Your task to perform on an android device: Set the phone to "Do not disturb". Image 0: 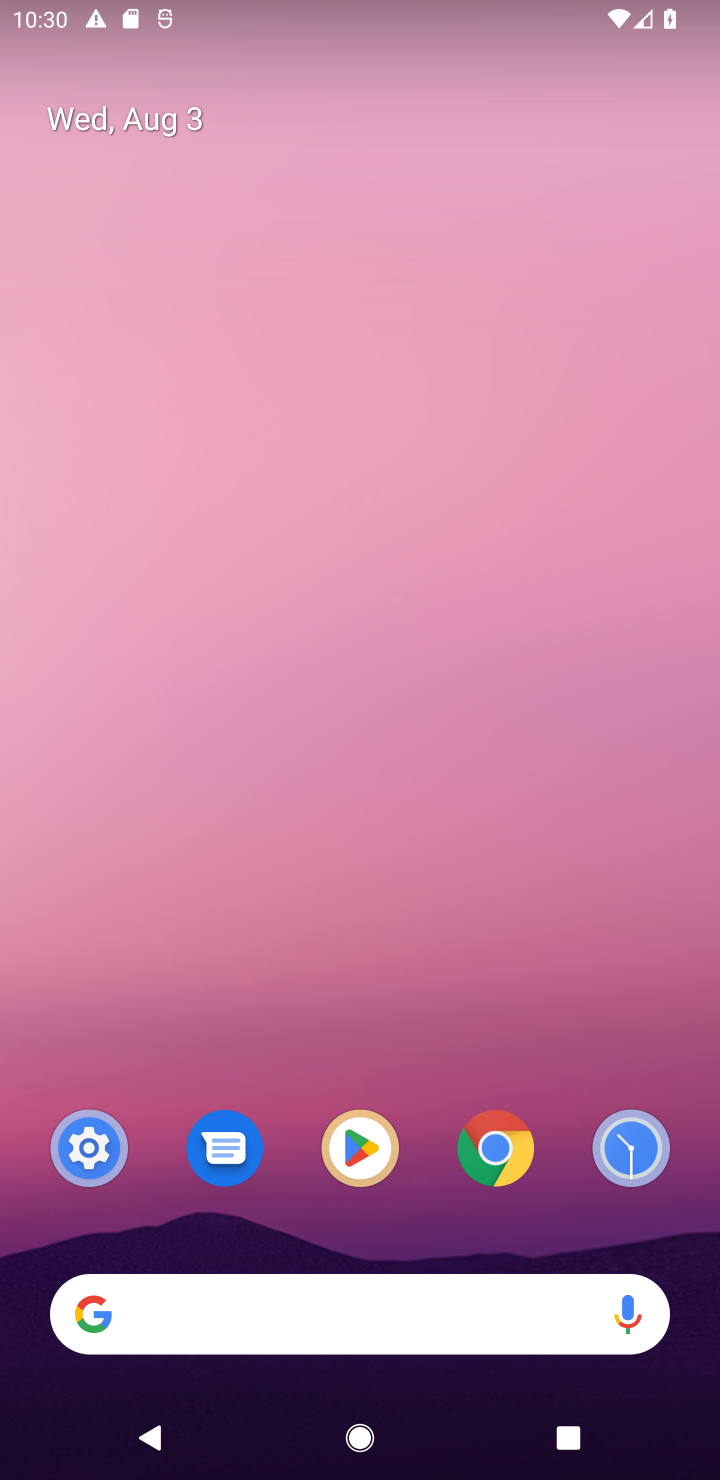
Step 0: drag from (466, 1091) to (530, 123)
Your task to perform on an android device: Set the phone to "Do not disturb". Image 1: 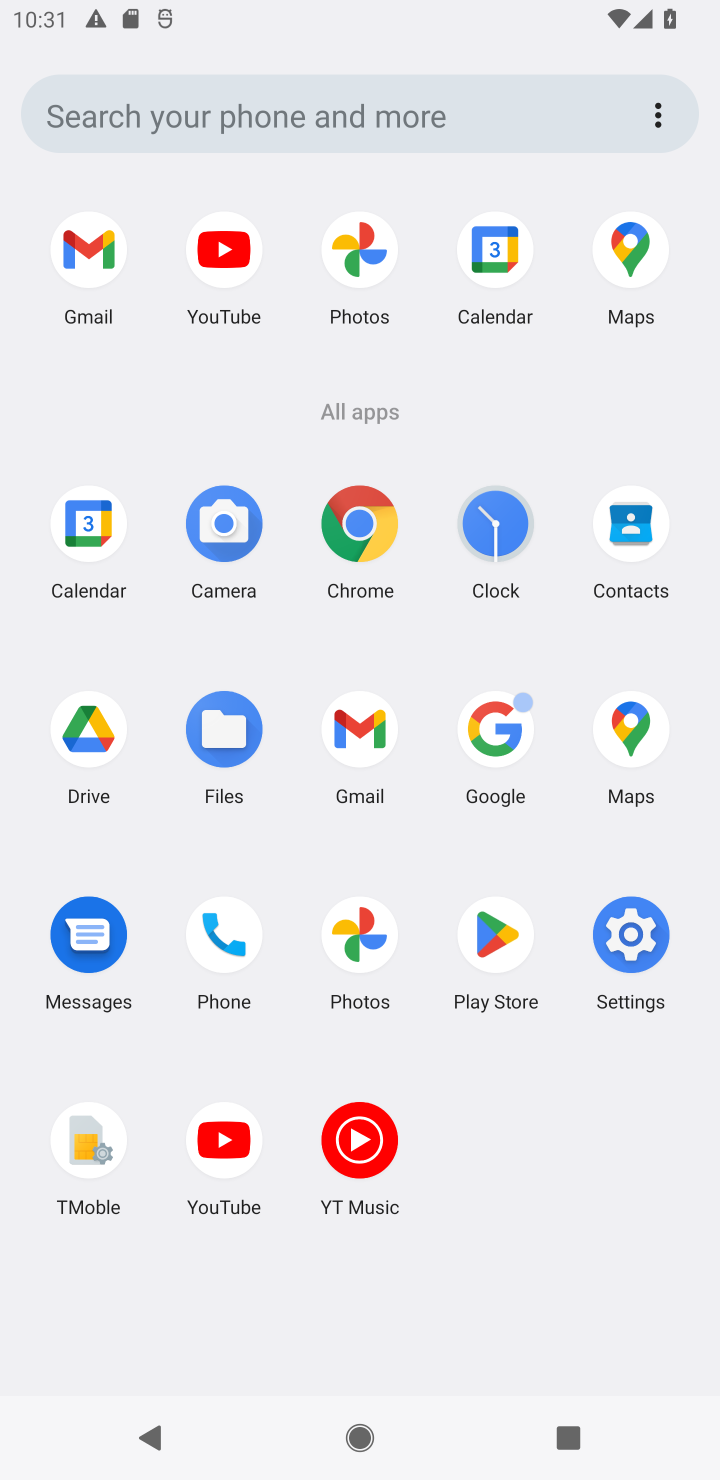
Step 1: click (653, 962)
Your task to perform on an android device: Set the phone to "Do not disturb". Image 2: 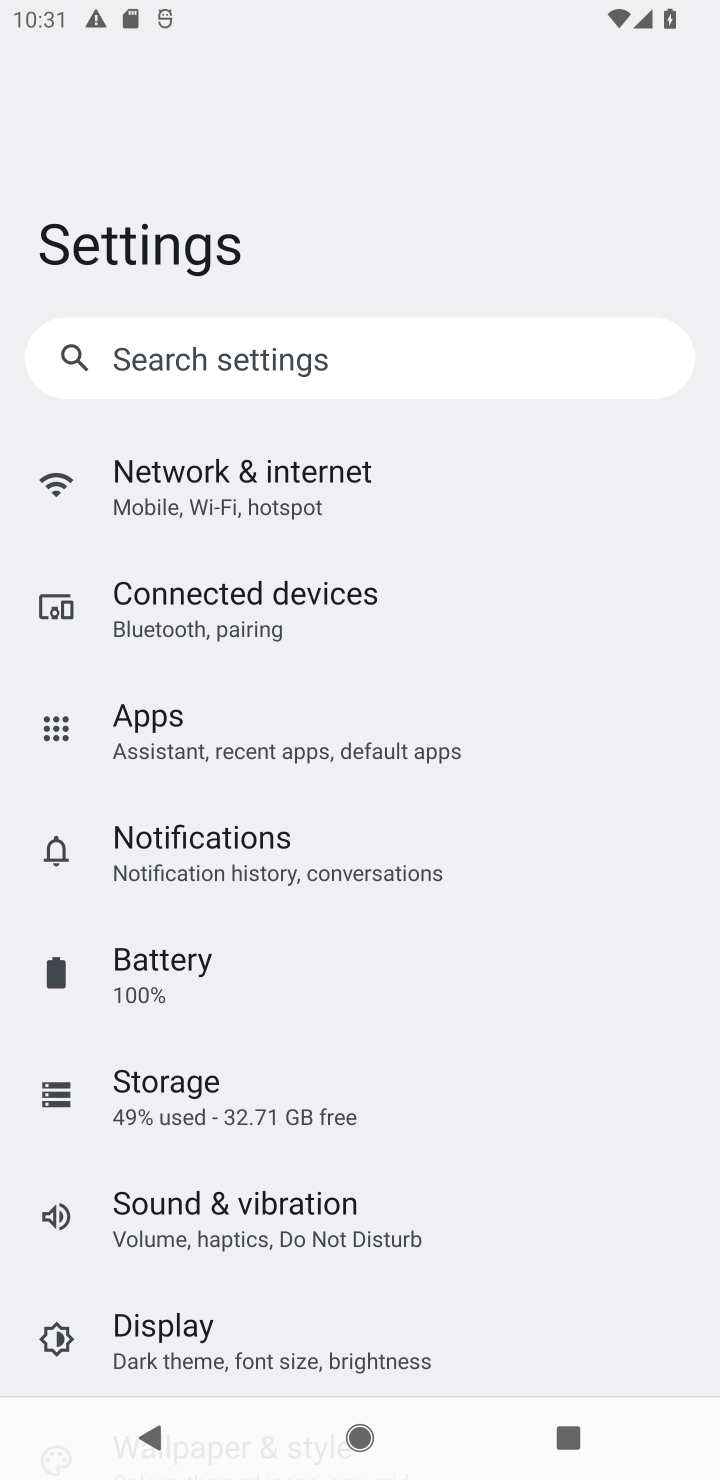
Step 2: drag from (329, 1228) to (400, 519)
Your task to perform on an android device: Set the phone to "Do not disturb". Image 3: 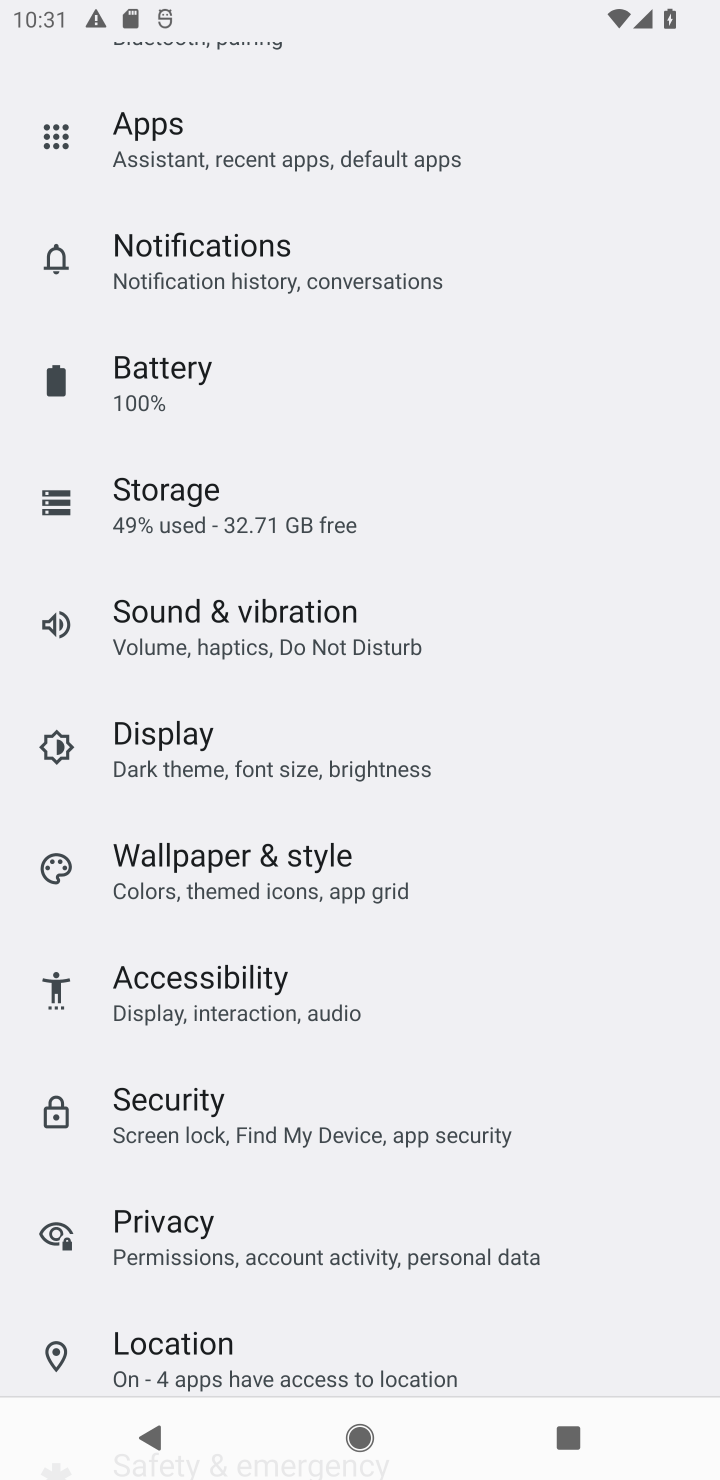
Step 3: drag from (312, 1258) to (388, 376)
Your task to perform on an android device: Set the phone to "Do not disturb". Image 4: 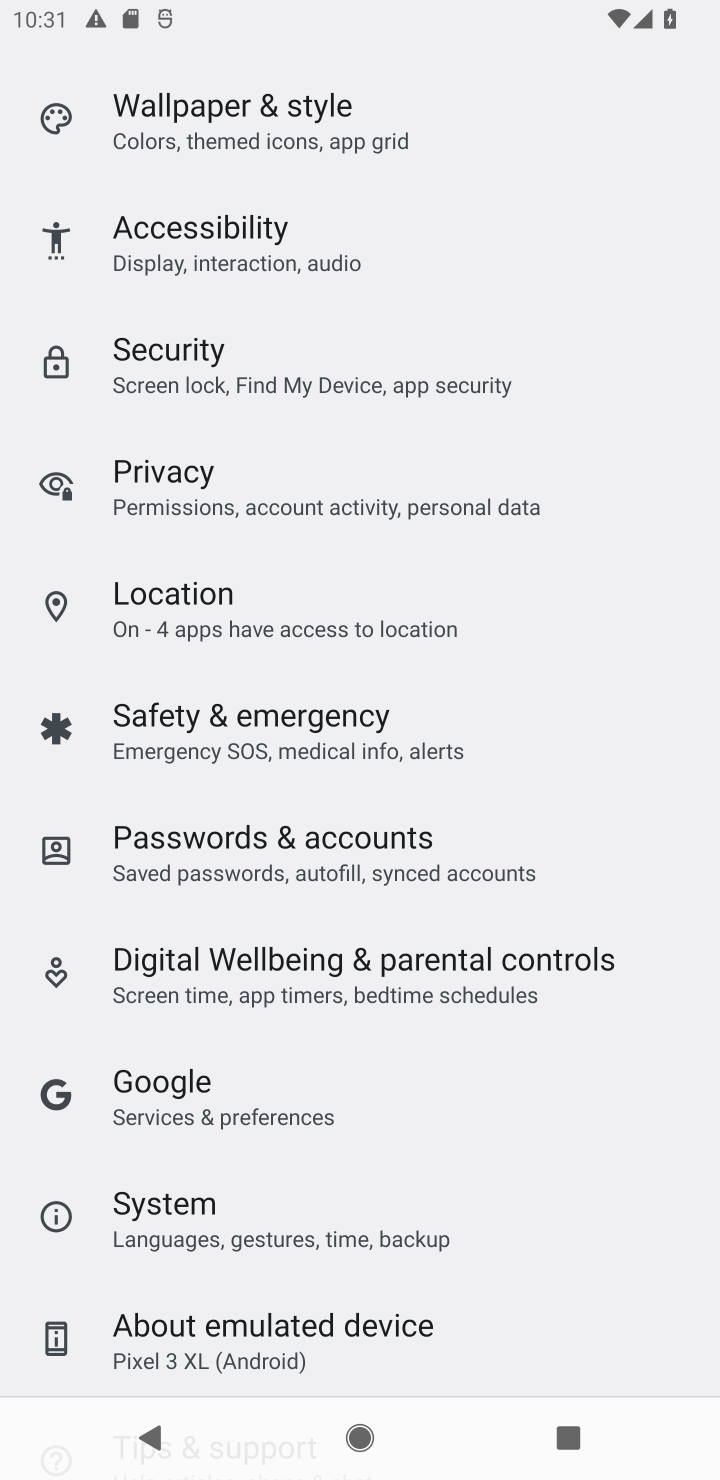
Step 4: drag from (356, 615) to (465, 1266)
Your task to perform on an android device: Set the phone to "Do not disturb". Image 5: 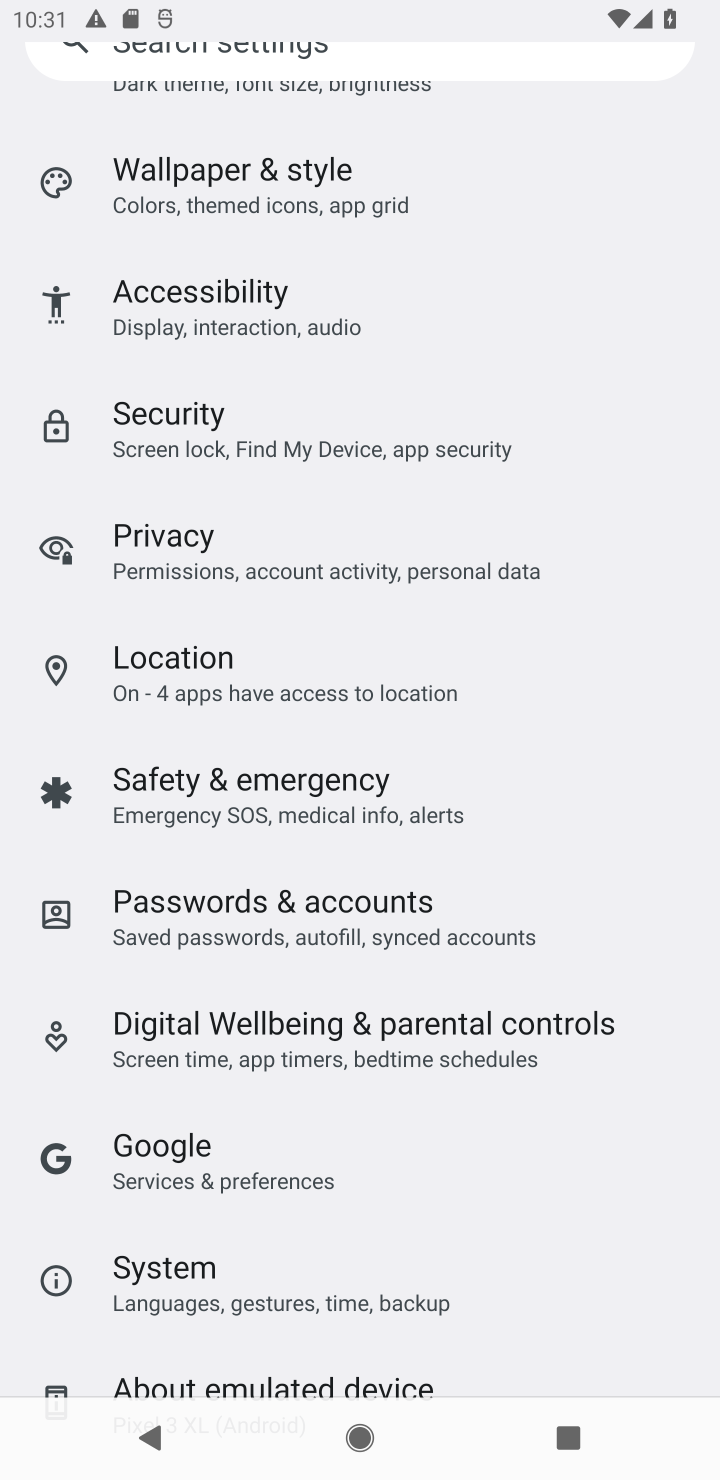
Step 5: drag from (332, 355) to (321, 1127)
Your task to perform on an android device: Set the phone to "Do not disturb". Image 6: 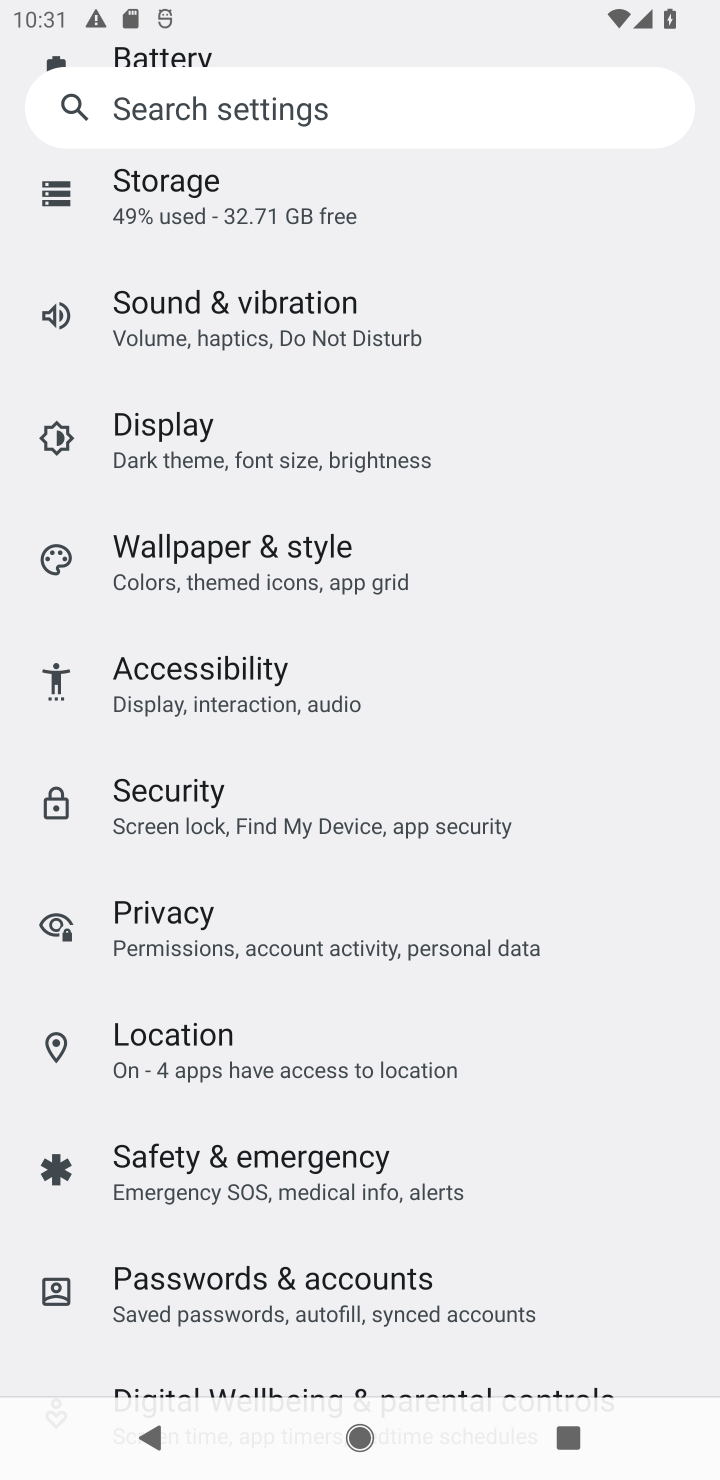
Step 6: click (262, 309)
Your task to perform on an android device: Set the phone to "Do not disturb". Image 7: 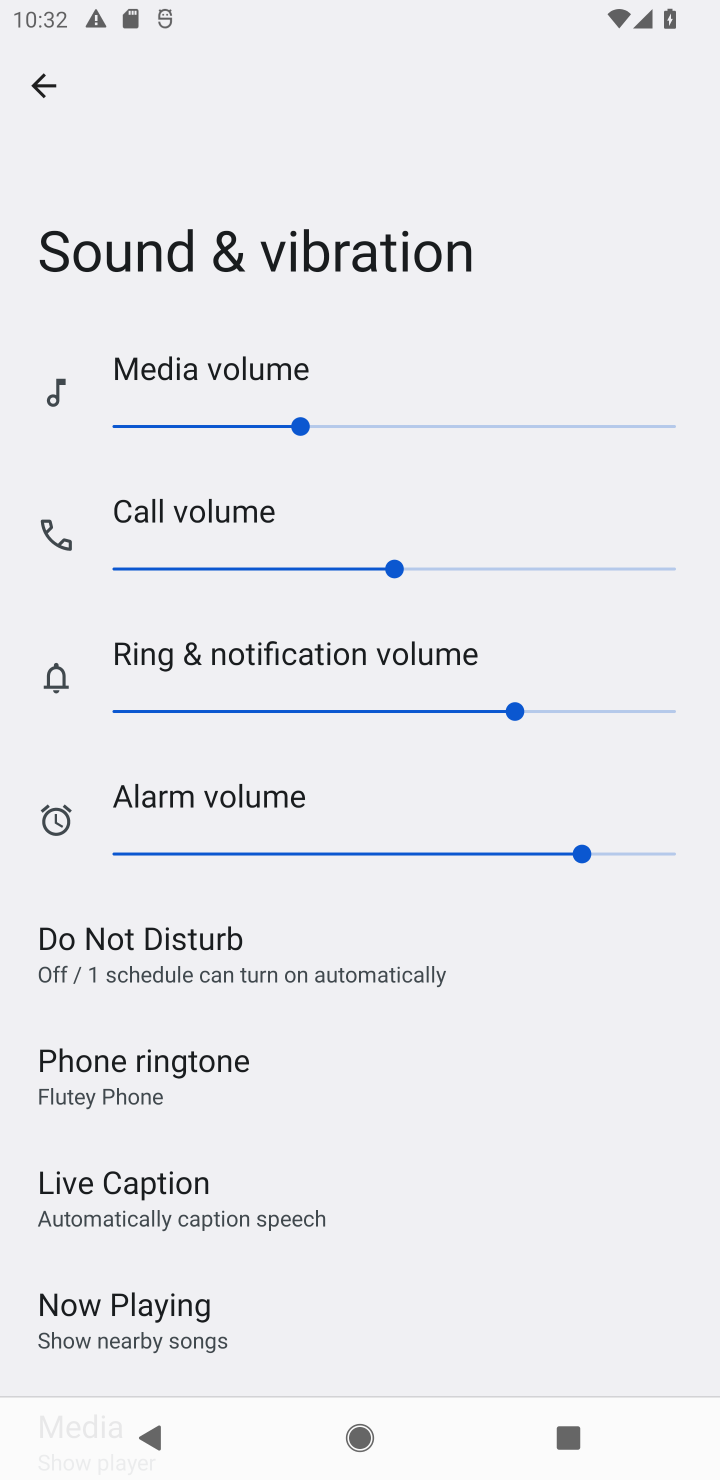
Step 7: click (212, 976)
Your task to perform on an android device: Set the phone to "Do not disturb". Image 8: 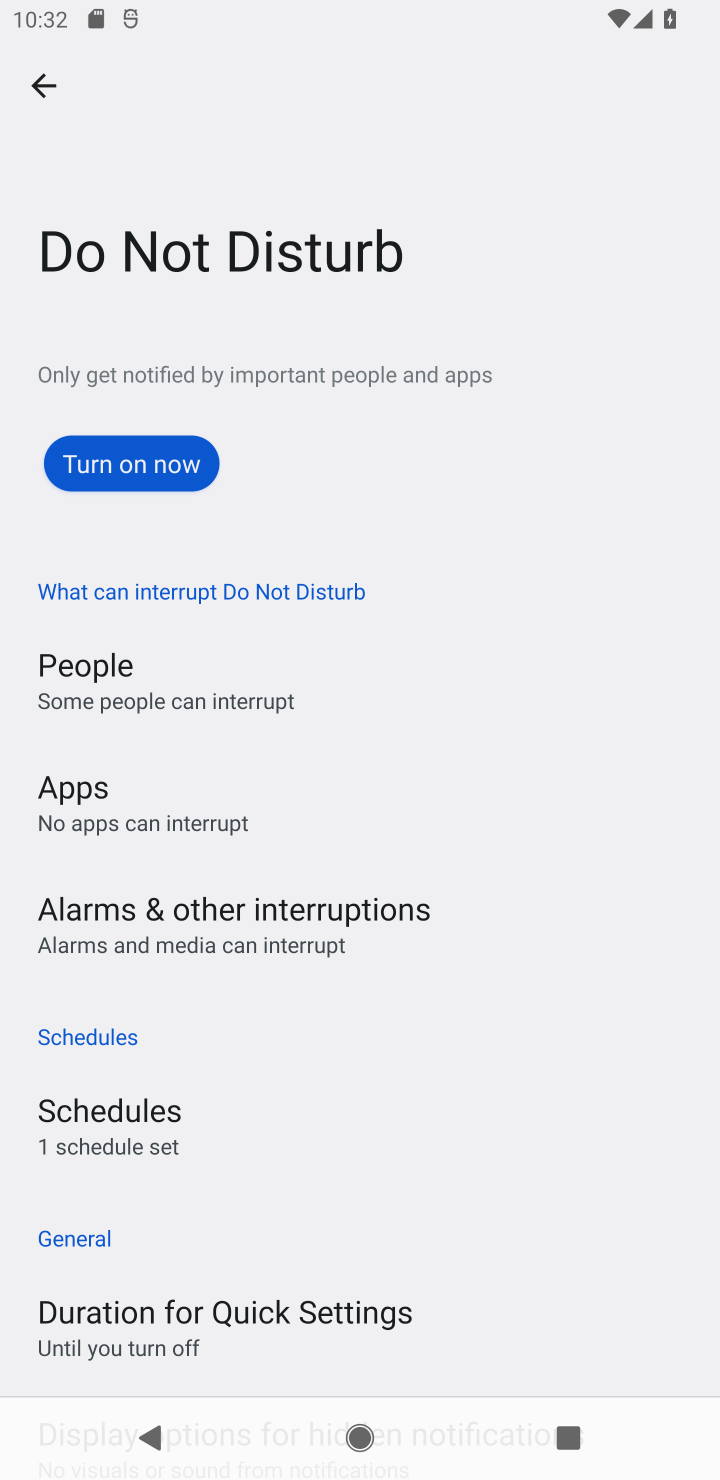
Step 8: click (146, 461)
Your task to perform on an android device: Set the phone to "Do not disturb". Image 9: 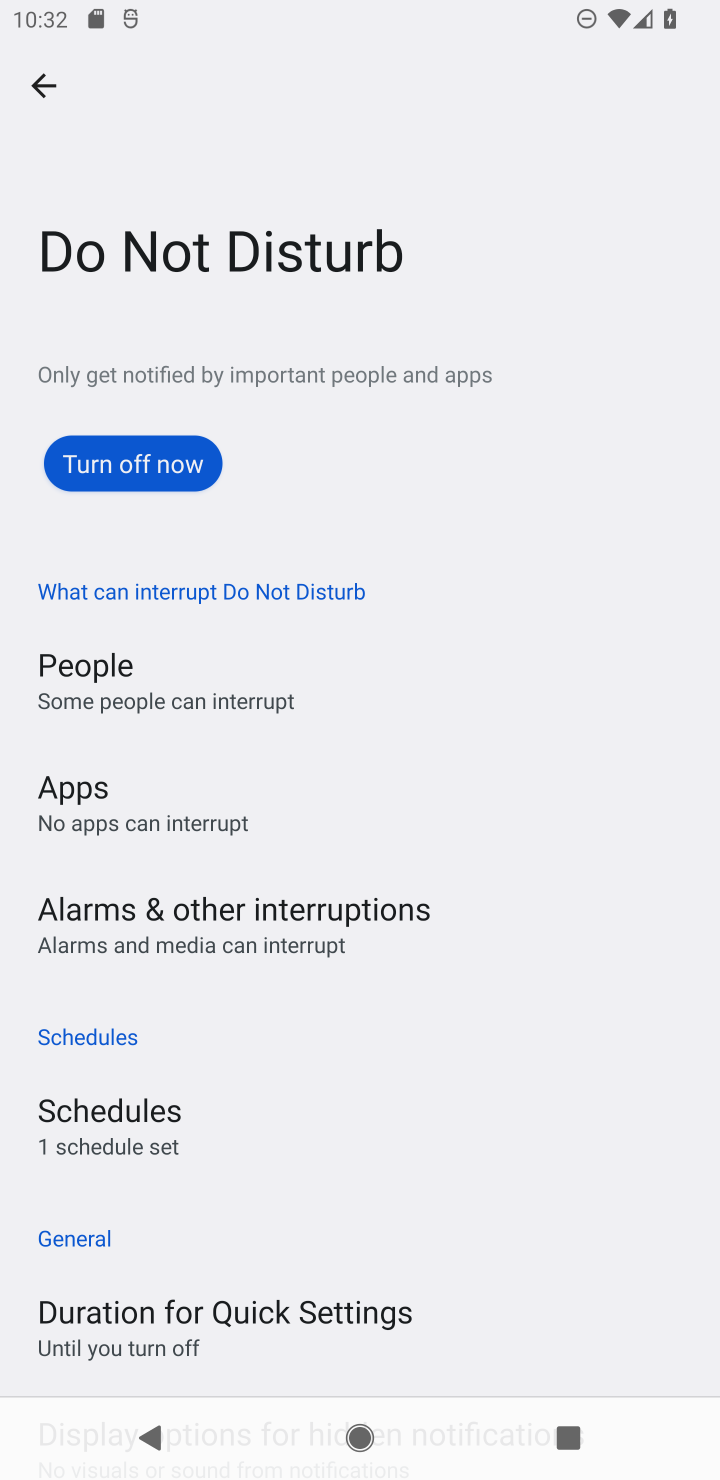
Step 9: click (108, 482)
Your task to perform on an android device: Set the phone to "Do not disturb". Image 10: 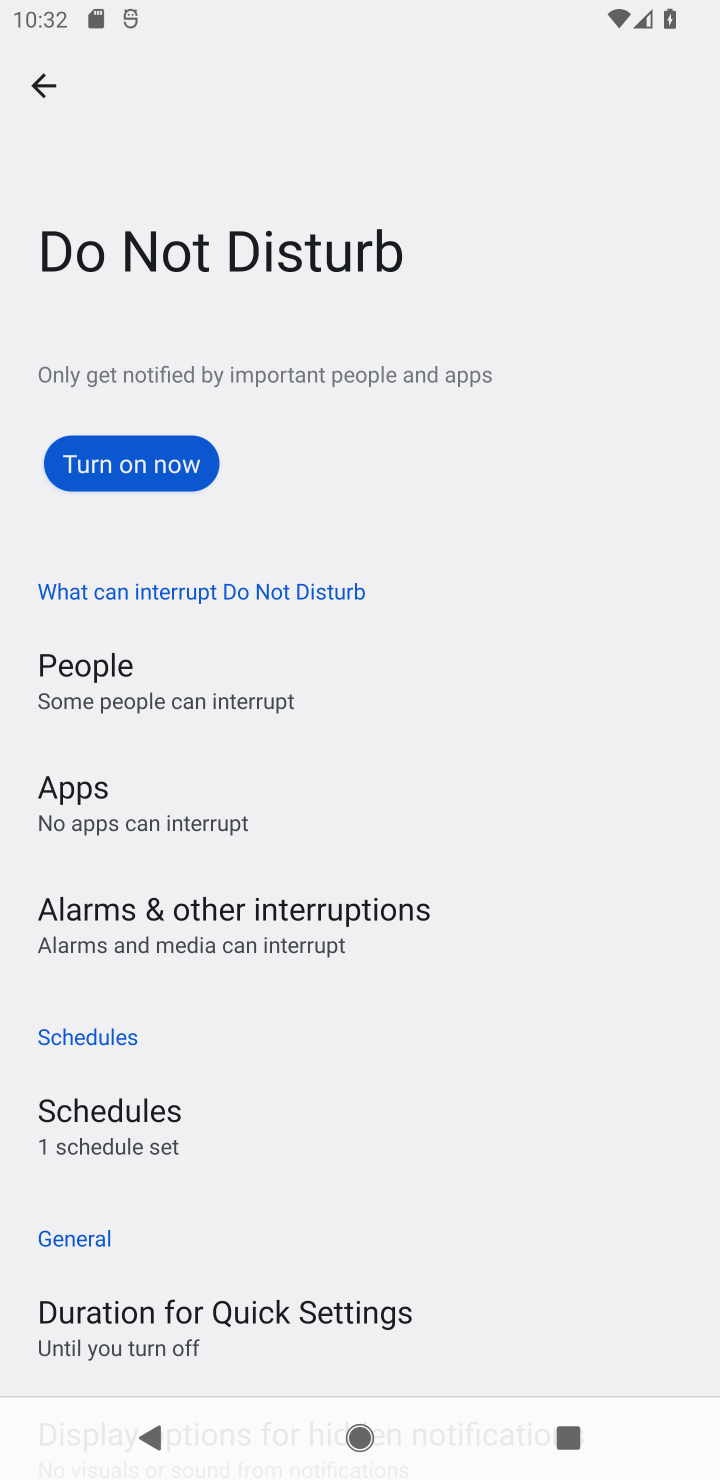
Step 10: click (157, 459)
Your task to perform on an android device: Set the phone to "Do not disturb". Image 11: 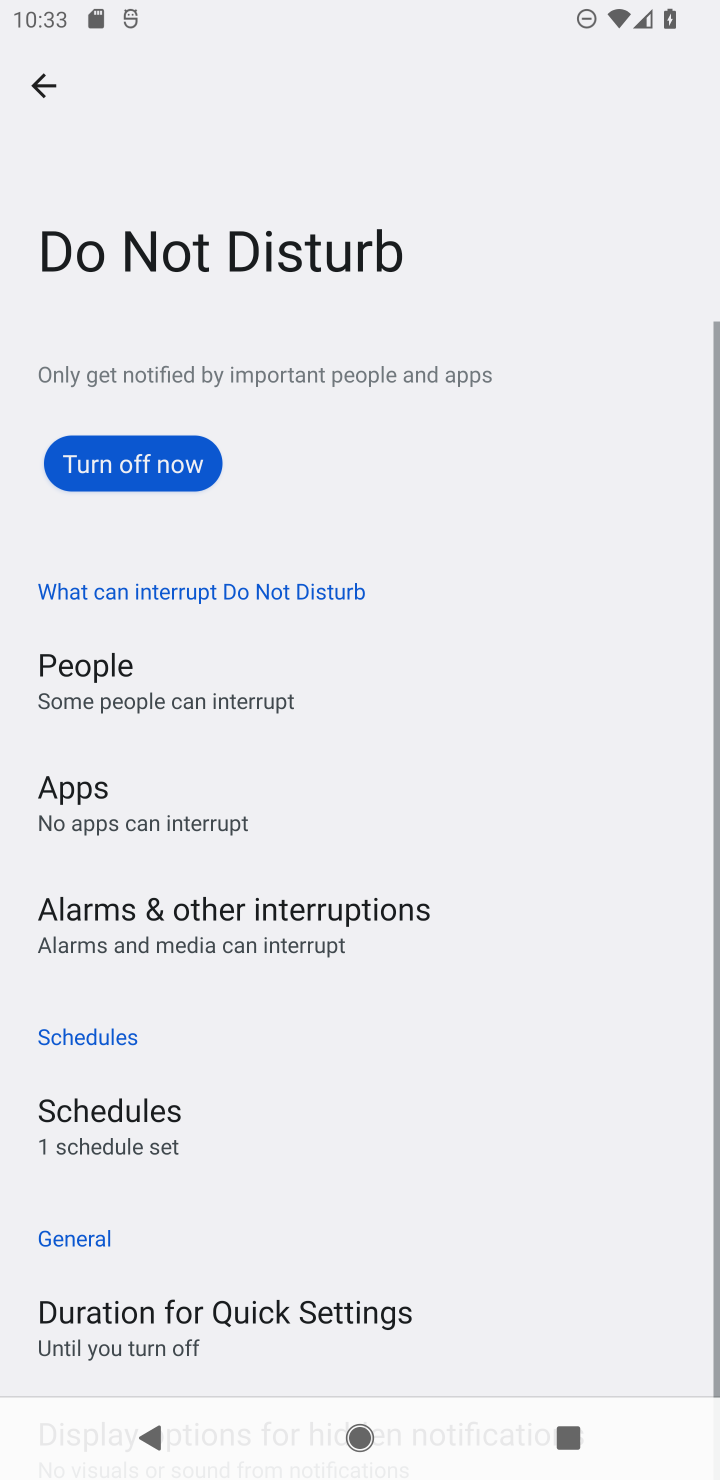
Step 11: task complete